Your task to perform on an android device: turn off wifi Image 0: 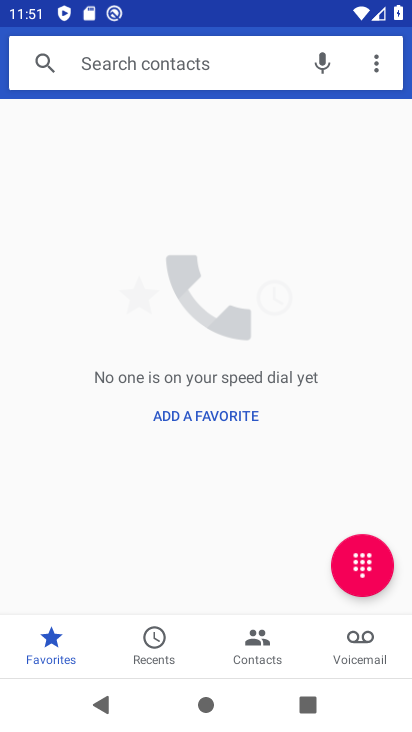
Step 0: press home button
Your task to perform on an android device: turn off wifi Image 1: 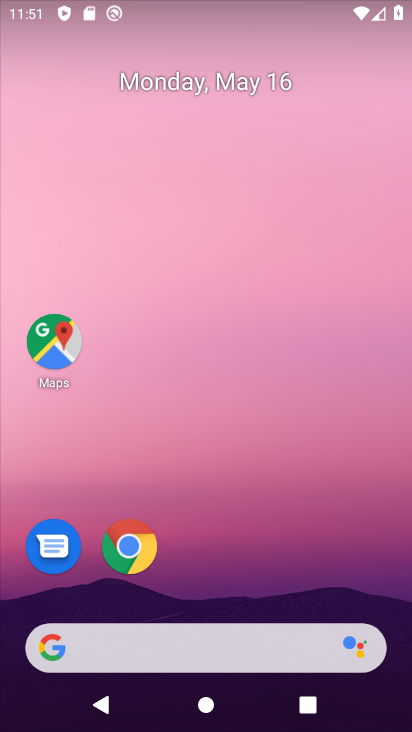
Step 1: drag from (396, 621) to (306, 60)
Your task to perform on an android device: turn off wifi Image 2: 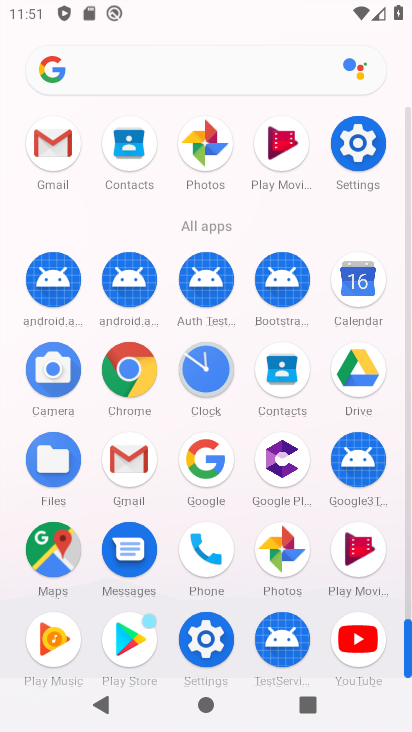
Step 2: click (204, 641)
Your task to perform on an android device: turn off wifi Image 3: 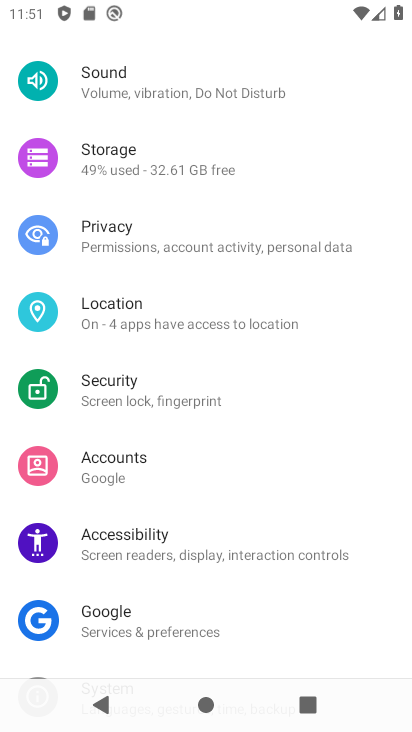
Step 3: drag from (371, 96) to (386, 505)
Your task to perform on an android device: turn off wifi Image 4: 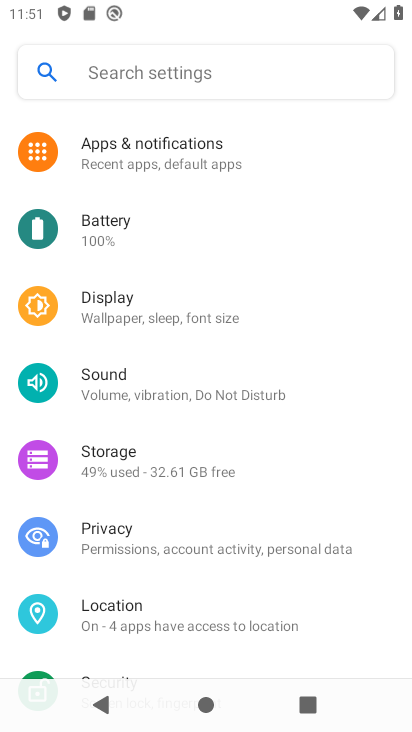
Step 4: drag from (346, 175) to (323, 559)
Your task to perform on an android device: turn off wifi Image 5: 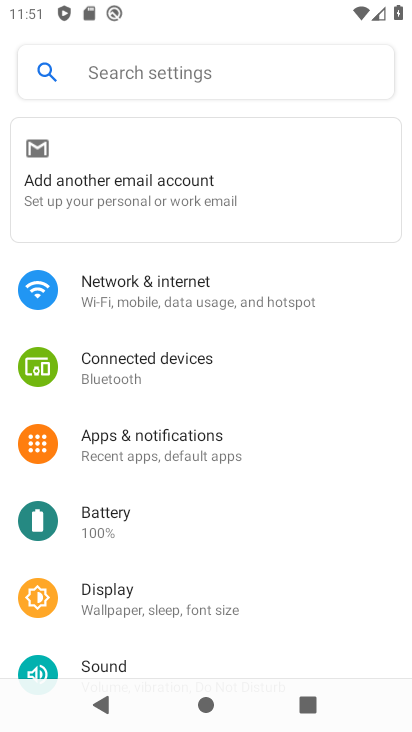
Step 5: click (120, 290)
Your task to perform on an android device: turn off wifi Image 6: 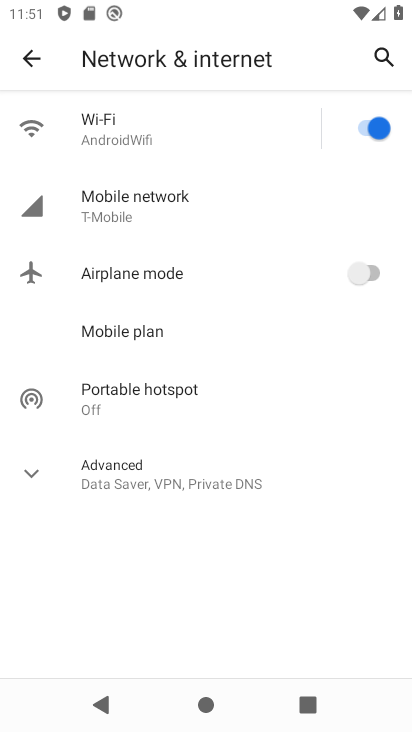
Step 6: click (362, 125)
Your task to perform on an android device: turn off wifi Image 7: 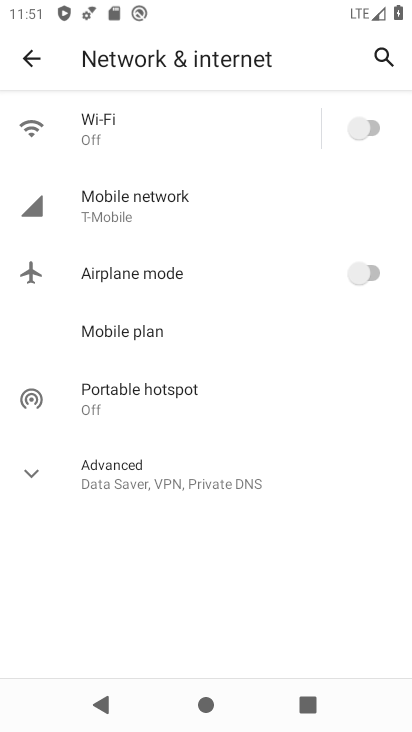
Step 7: task complete